Your task to perform on an android device: What is the recent news? Image 0: 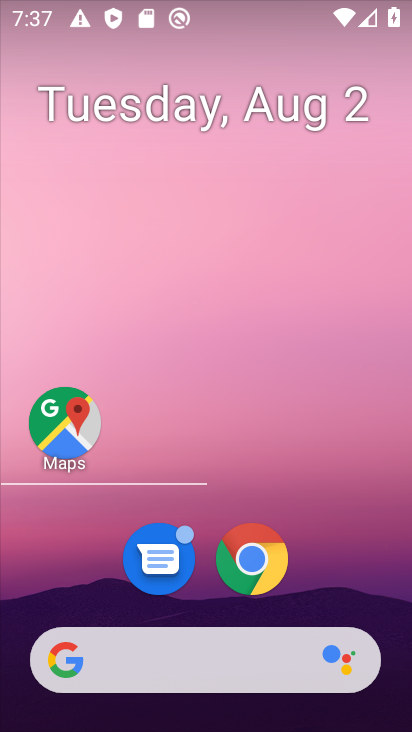
Step 0: drag from (350, 331) to (340, 82)
Your task to perform on an android device: What is the recent news? Image 1: 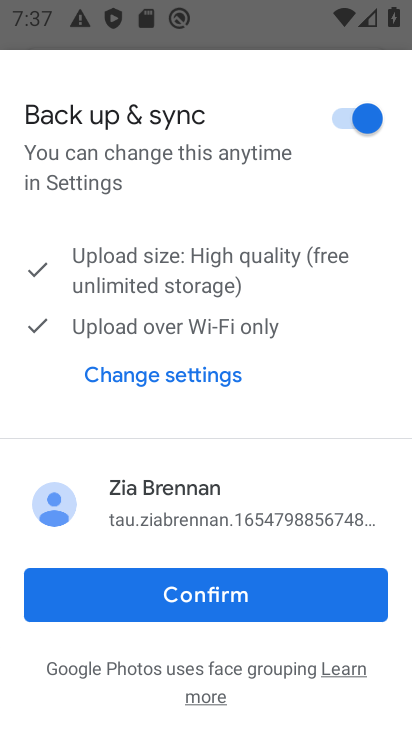
Step 1: press home button
Your task to perform on an android device: What is the recent news? Image 2: 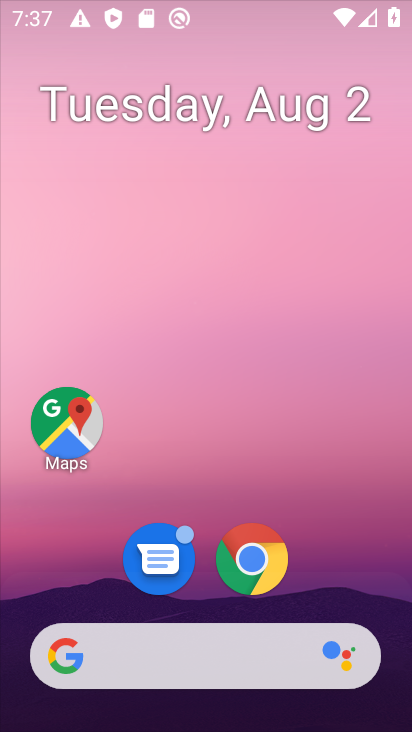
Step 2: drag from (336, 580) to (309, 77)
Your task to perform on an android device: What is the recent news? Image 3: 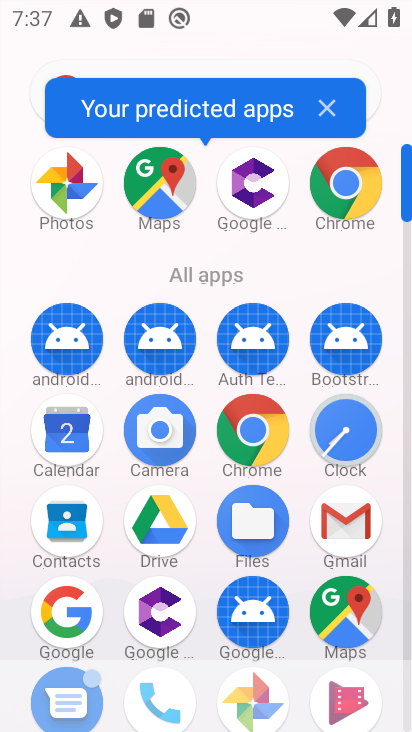
Step 3: drag from (197, 599) to (248, 232)
Your task to perform on an android device: What is the recent news? Image 4: 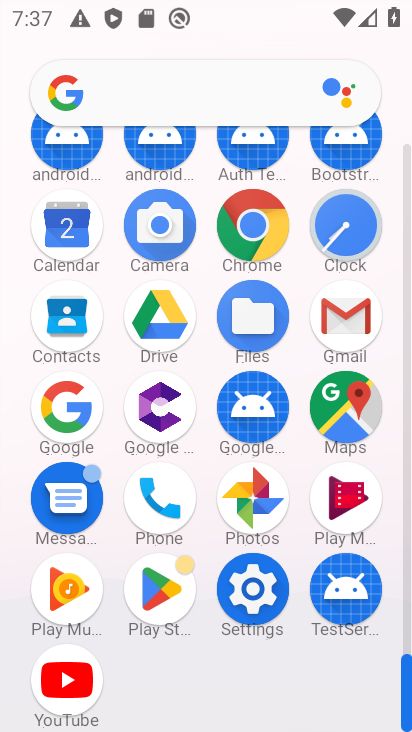
Step 4: drag from (69, 412) to (98, 202)
Your task to perform on an android device: What is the recent news? Image 5: 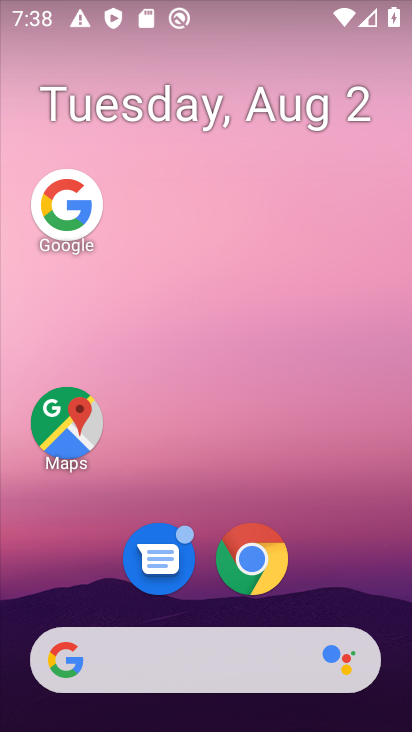
Step 5: click (55, 210)
Your task to perform on an android device: What is the recent news? Image 6: 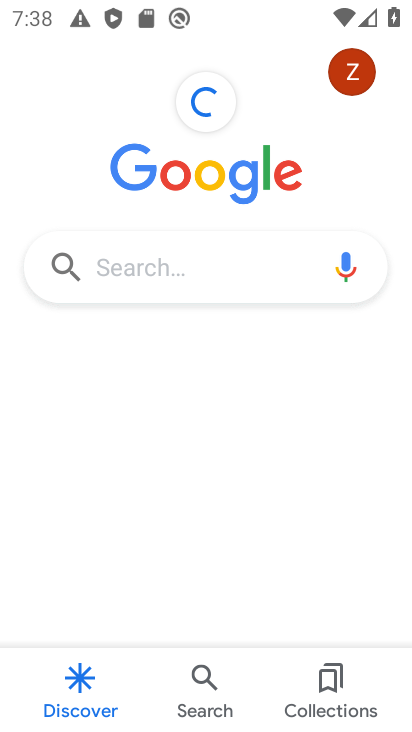
Step 6: click (165, 293)
Your task to perform on an android device: What is the recent news? Image 7: 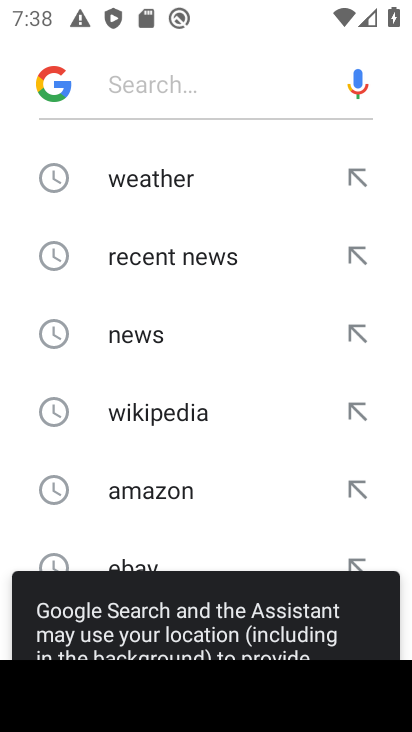
Step 7: click (186, 237)
Your task to perform on an android device: What is the recent news? Image 8: 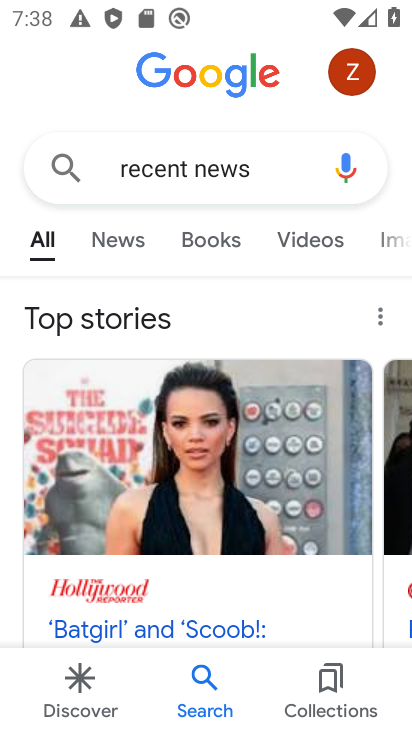
Step 8: task complete